Your task to perform on an android device: Go to eBay Image 0: 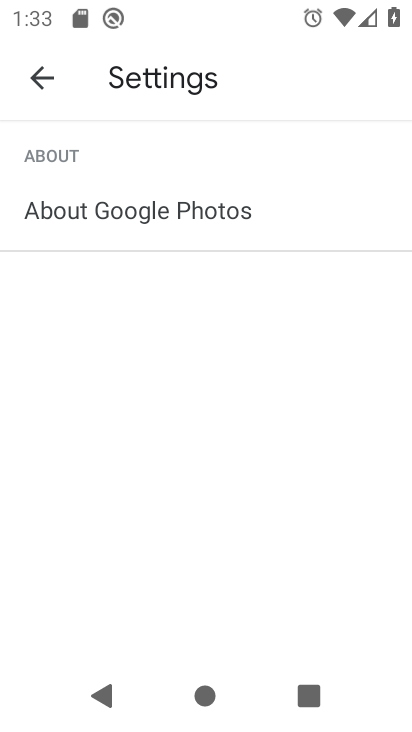
Step 0: press home button
Your task to perform on an android device: Go to eBay Image 1: 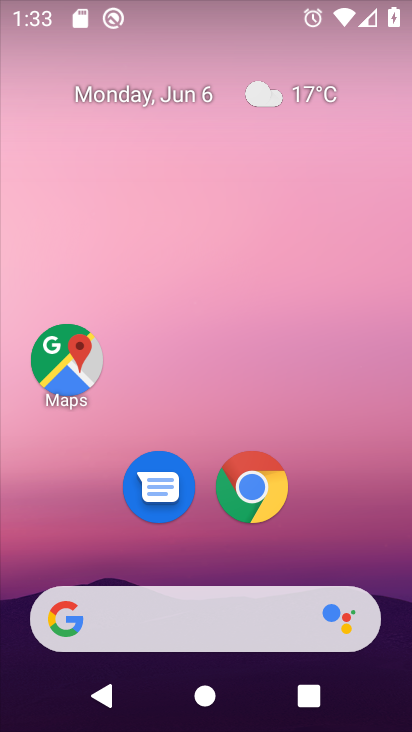
Step 1: click (250, 483)
Your task to perform on an android device: Go to eBay Image 2: 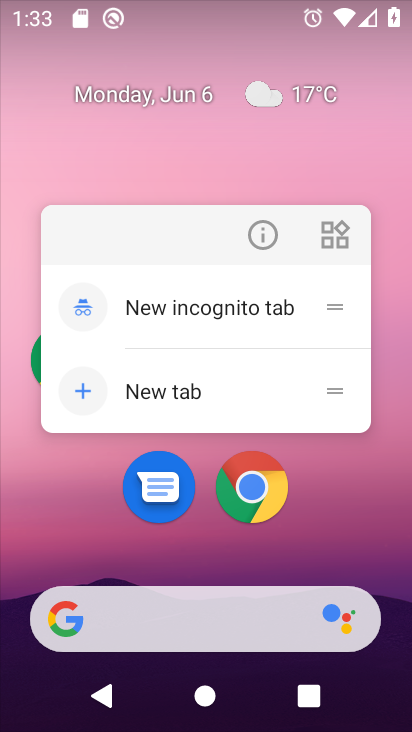
Step 2: click (250, 483)
Your task to perform on an android device: Go to eBay Image 3: 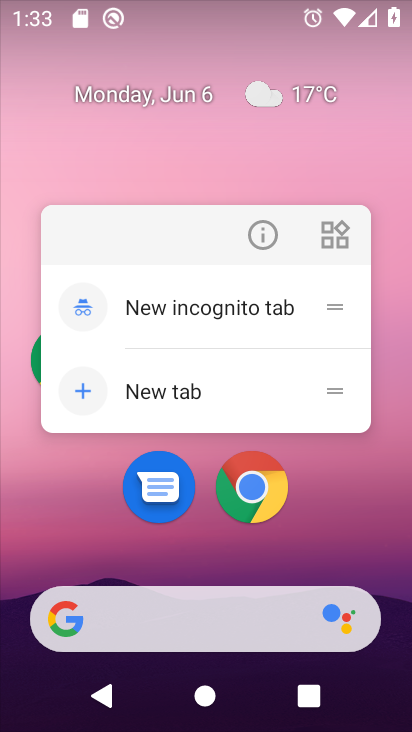
Step 3: click (250, 483)
Your task to perform on an android device: Go to eBay Image 4: 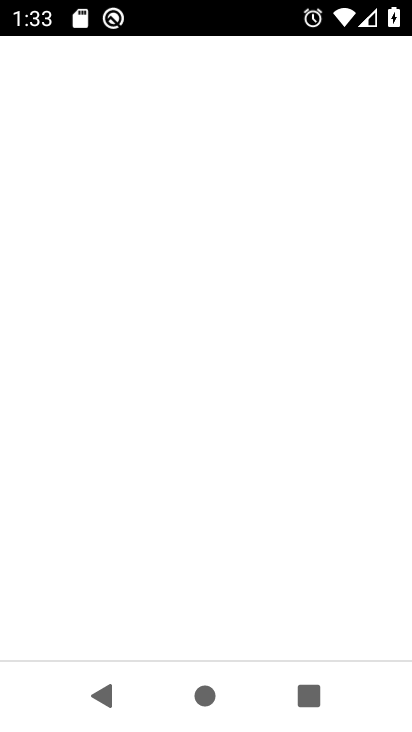
Step 4: click (250, 483)
Your task to perform on an android device: Go to eBay Image 5: 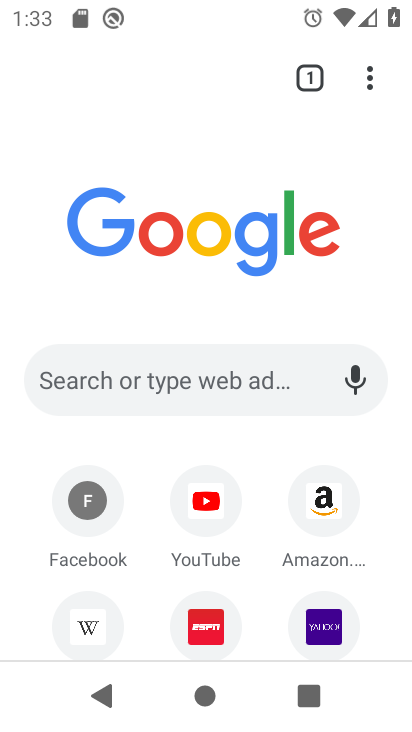
Step 5: drag from (305, 357) to (351, 71)
Your task to perform on an android device: Go to eBay Image 6: 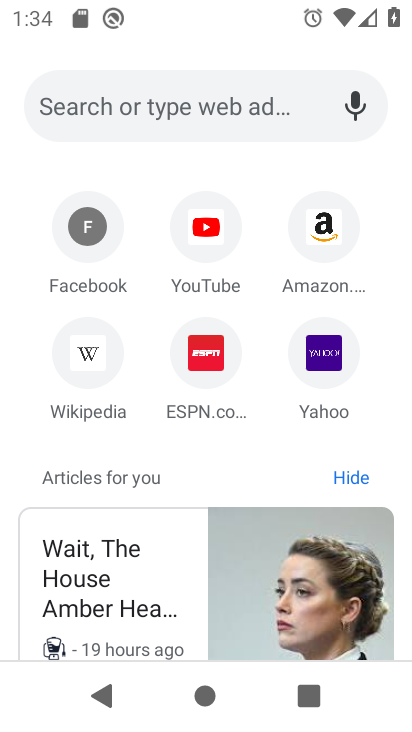
Step 6: click (236, 112)
Your task to perform on an android device: Go to eBay Image 7: 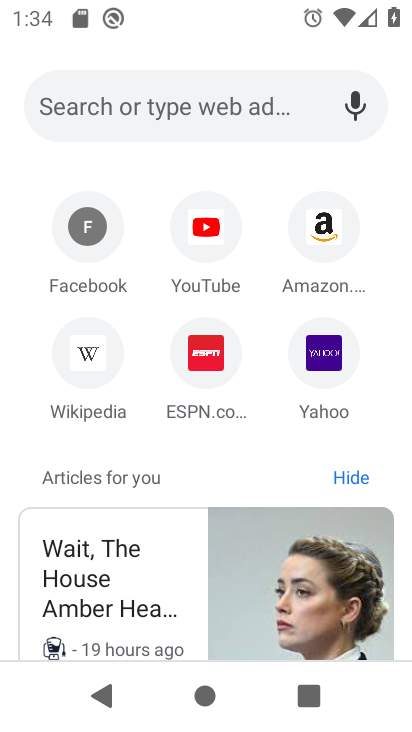
Step 7: click (236, 112)
Your task to perform on an android device: Go to eBay Image 8: 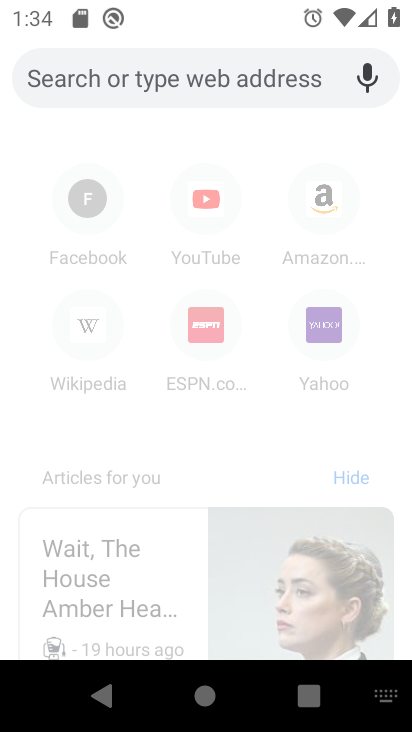
Step 8: type "e bay"
Your task to perform on an android device: Go to eBay Image 9: 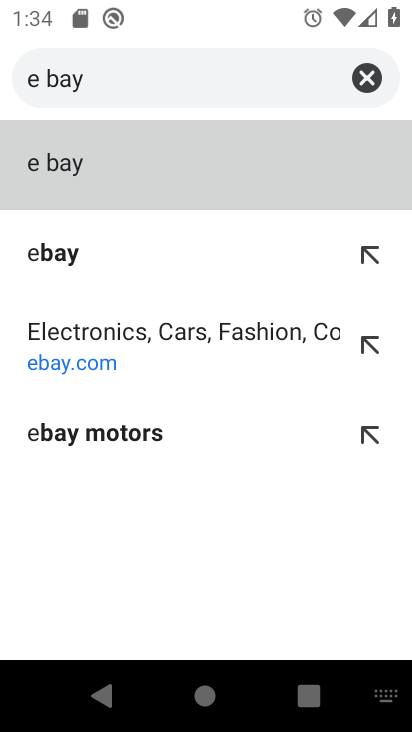
Step 9: click (99, 360)
Your task to perform on an android device: Go to eBay Image 10: 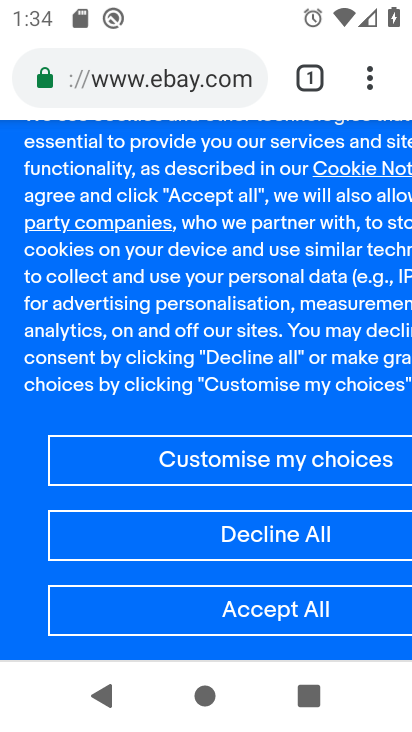
Step 10: task complete